Your task to perform on an android device: Open settings Image 0: 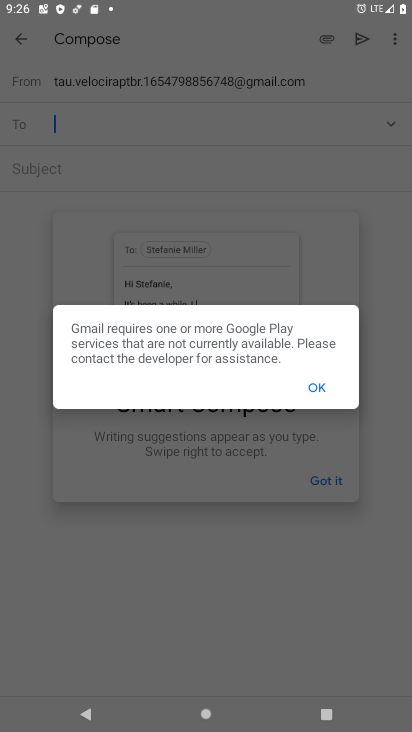
Step 0: press home button
Your task to perform on an android device: Open settings Image 1: 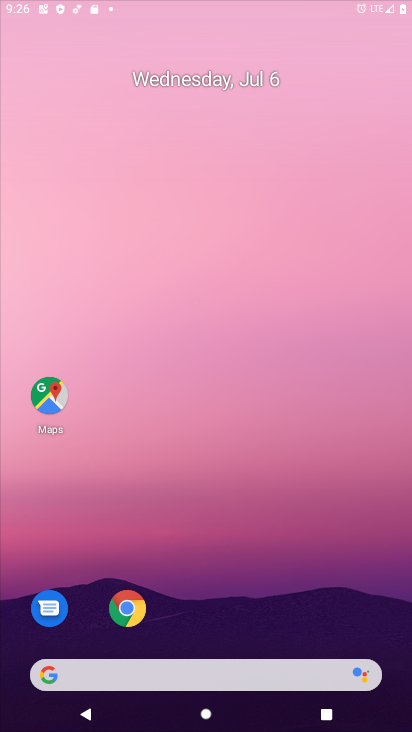
Step 1: drag from (395, 648) to (253, 22)
Your task to perform on an android device: Open settings Image 2: 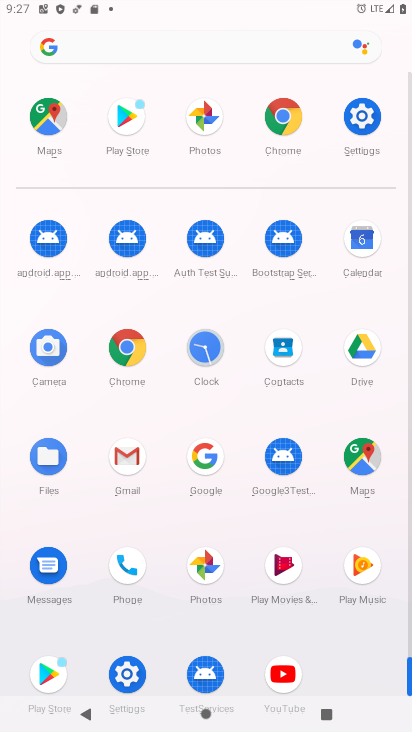
Step 2: click (365, 113)
Your task to perform on an android device: Open settings Image 3: 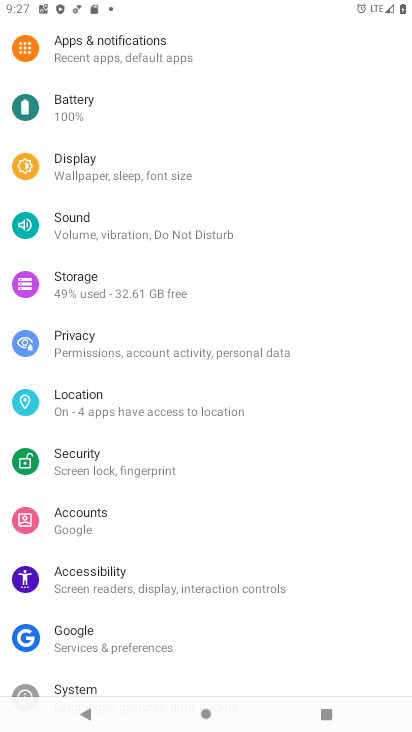
Step 3: task complete